Your task to perform on an android device: Open the map Image 0: 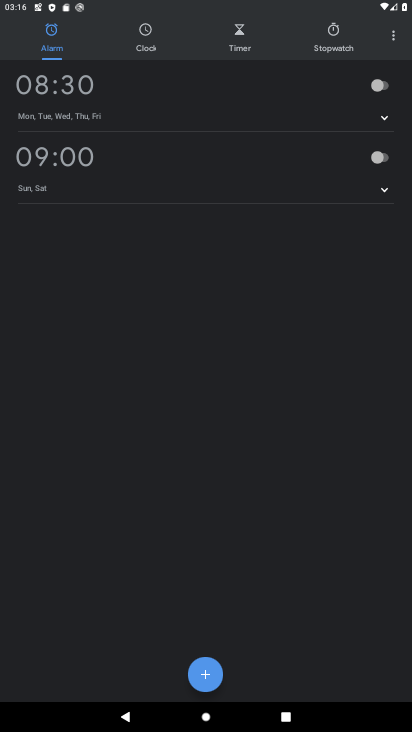
Step 0: press home button
Your task to perform on an android device: Open the map Image 1: 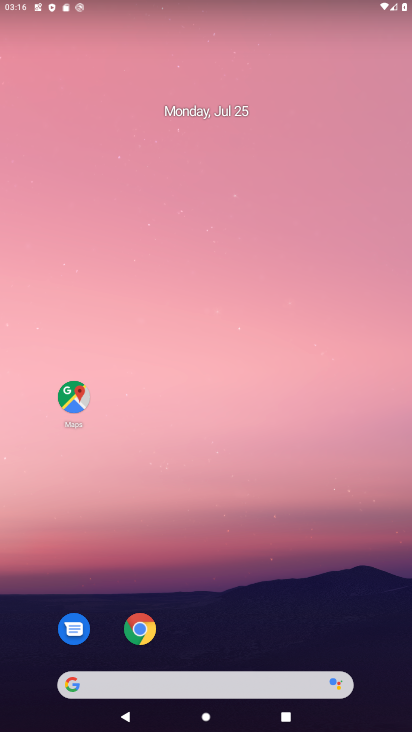
Step 1: click (77, 389)
Your task to perform on an android device: Open the map Image 2: 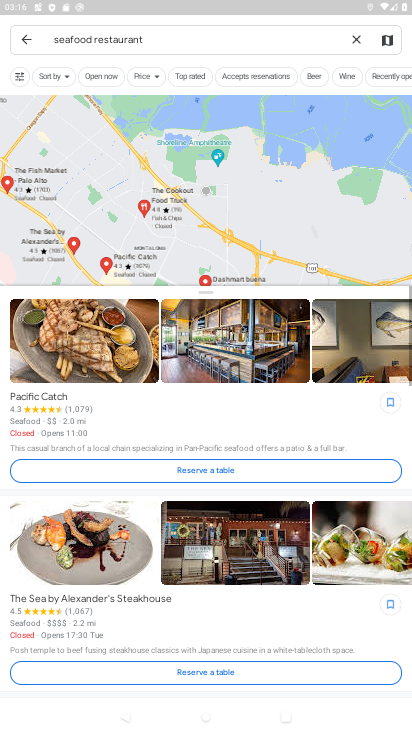
Step 2: task complete